Your task to perform on an android device: turn vacation reply on in the gmail app Image 0: 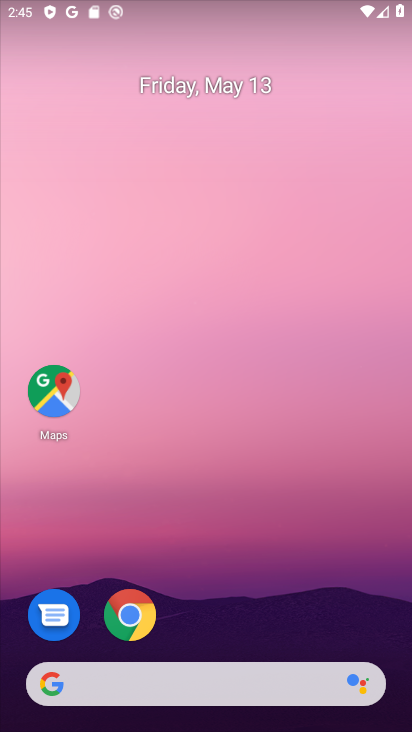
Step 0: drag from (200, 686) to (360, 357)
Your task to perform on an android device: turn vacation reply on in the gmail app Image 1: 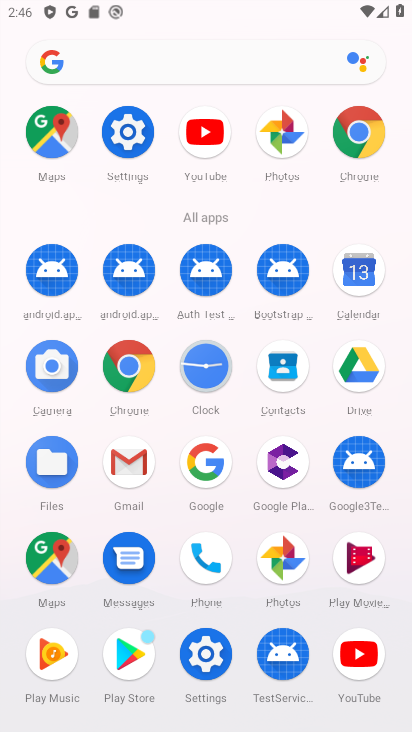
Step 1: click (143, 454)
Your task to perform on an android device: turn vacation reply on in the gmail app Image 2: 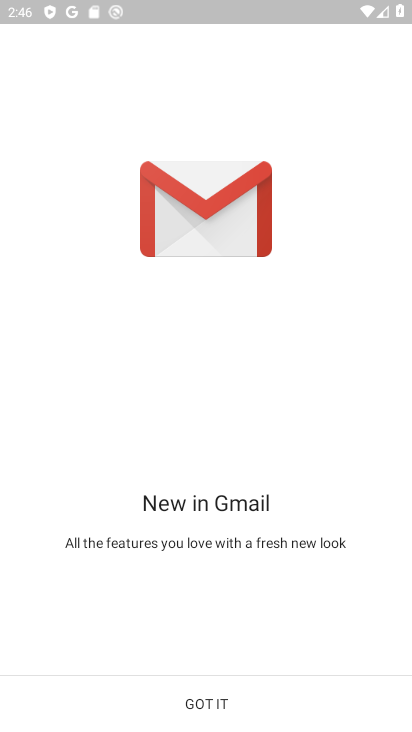
Step 2: click (232, 694)
Your task to perform on an android device: turn vacation reply on in the gmail app Image 3: 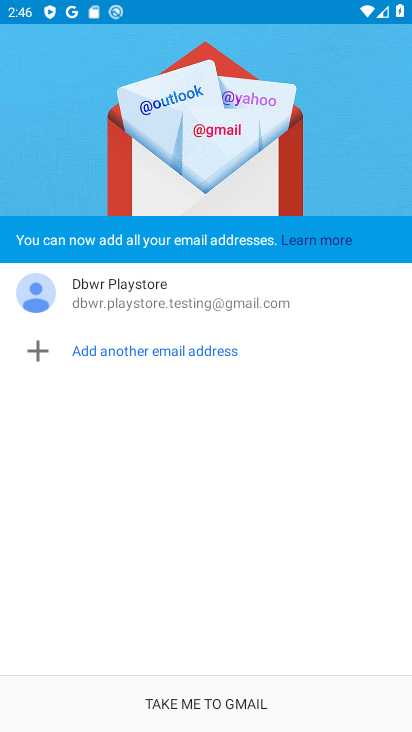
Step 3: click (235, 697)
Your task to perform on an android device: turn vacation reply on in the gmail app Image 4: 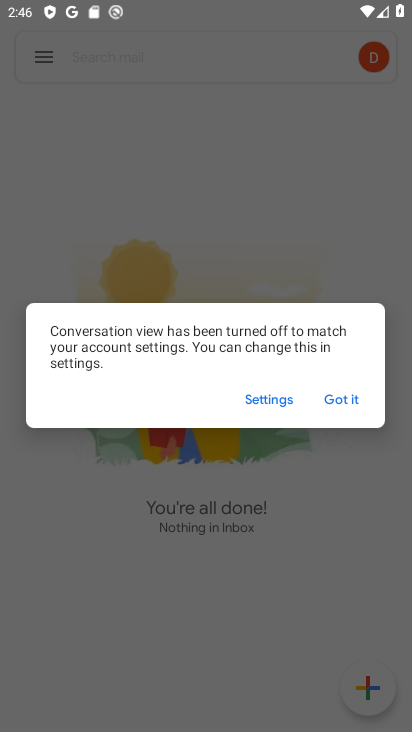
Step 4: click (335, 404)
Your task to perform on an android device: turn vacation reply on in the gmail app Image 5: 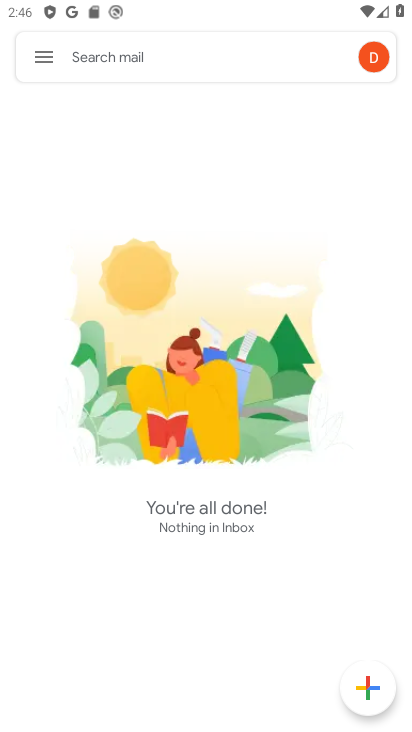
Step 5: click (48, 55)
Your task to perform on an android device: turn vacation reply on in the gmail app Image 6: 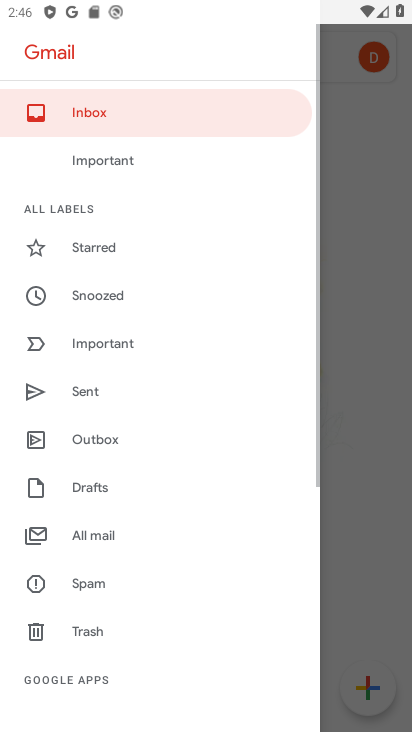
Step 6: drag from (173, 565) to (269, 233)
Your task to perform on an android device: turn vacation reply on in the gmail app Image 7: 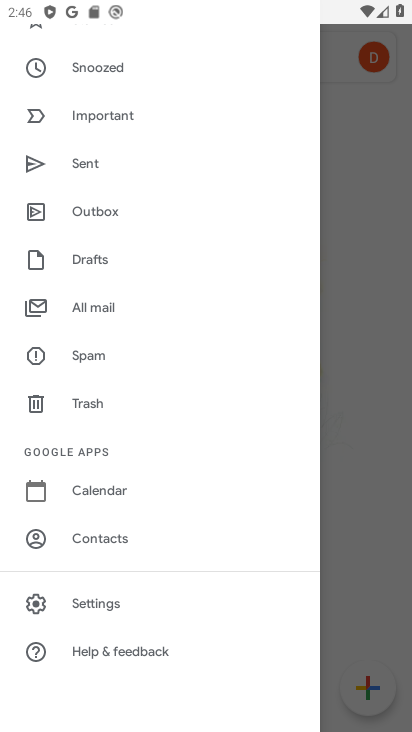
Step 7: click (112, 608)
Your task to perform on an android device: turn vacation reply on in the gmail app Image 8: 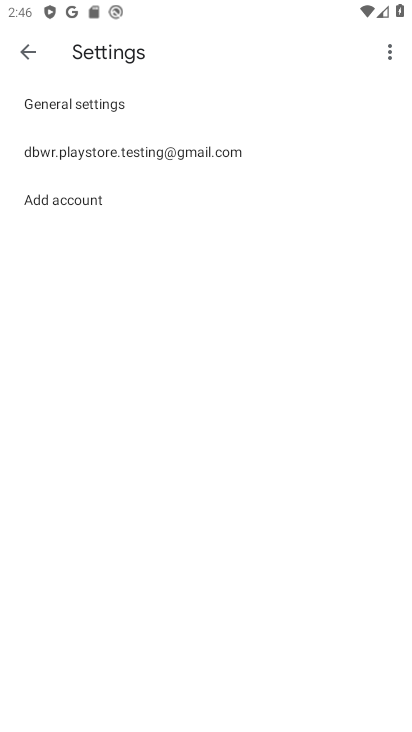
Step 8: click (222, 145)
Your task to perform on an android device: turn vacation reply on in the gmail app Image 9: 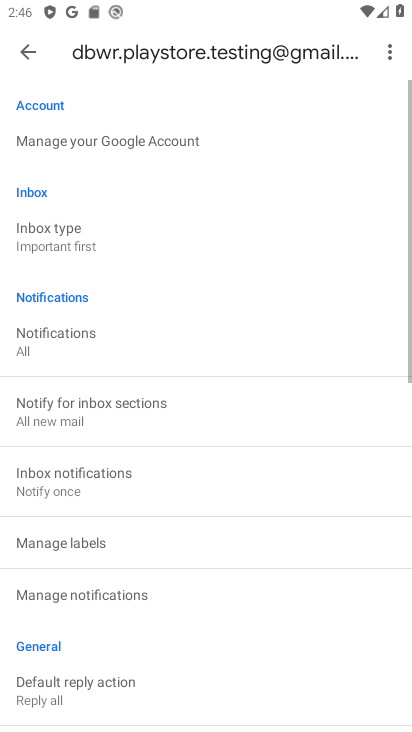
Step 9: drag from (202, 594) to (364, 196)
Your task to perform on an android device: turn vacation reply on in the gmail app Image 10: 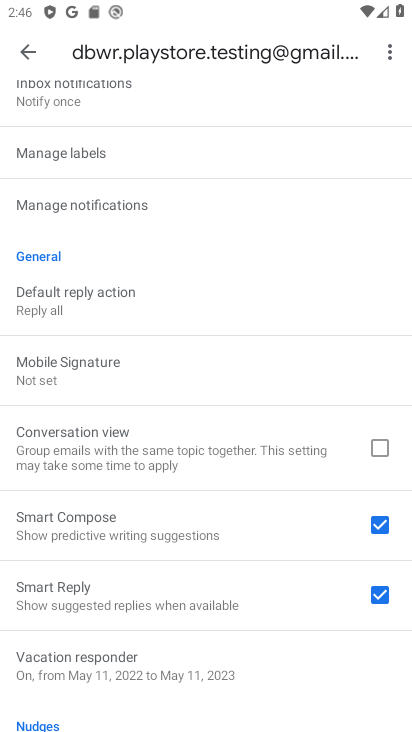
Step 10: drag from (204, 565) to (349, 287)
Your task to perform on an android device: turn vacation reply on in the gmail app Image 11: 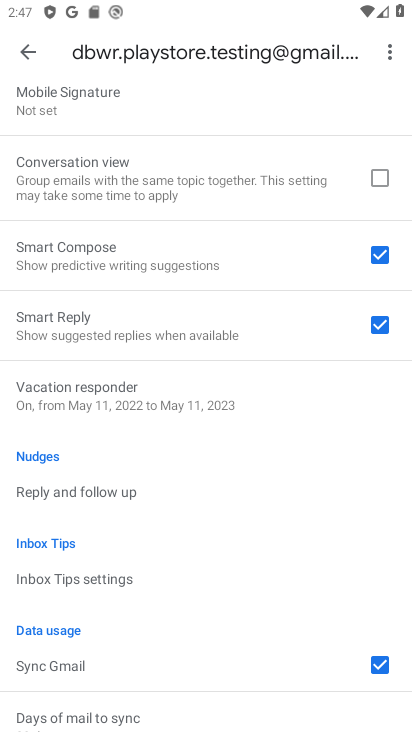
Step 11: click (183, 412)
Your task to perform on an android device: turn vacation reply on in the gmail app Image 12: 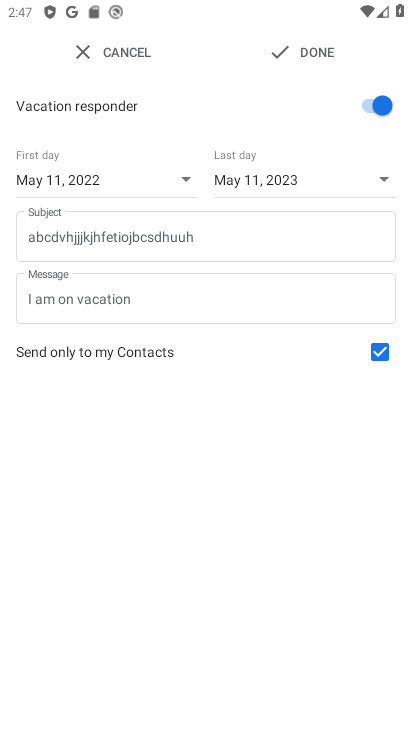
Step 12: task complete